Your task to perform on an android device: Do I have any events this weekend? Image 0: 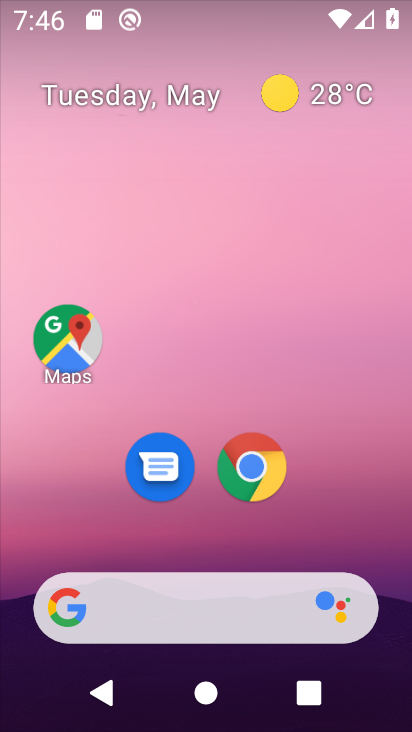
Step 0: drag from (393, 705) to (321, 213)
Your task to perform on an android device: Do I have any events this weekend? Image 1: 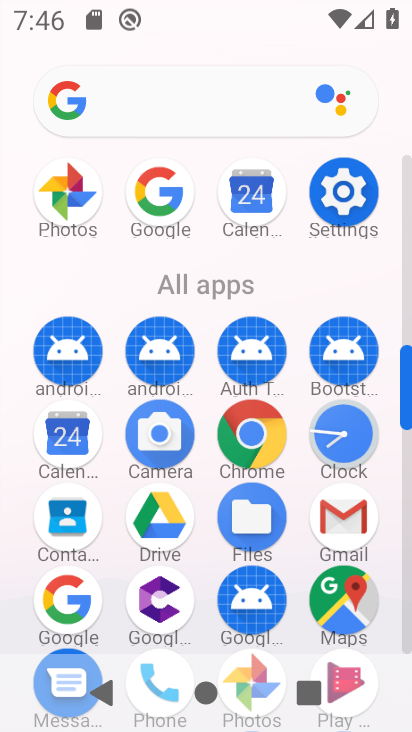
Step 1: click (243, 206)
Your task to perform on an android device: Do I have any events this weekend? Image 2: 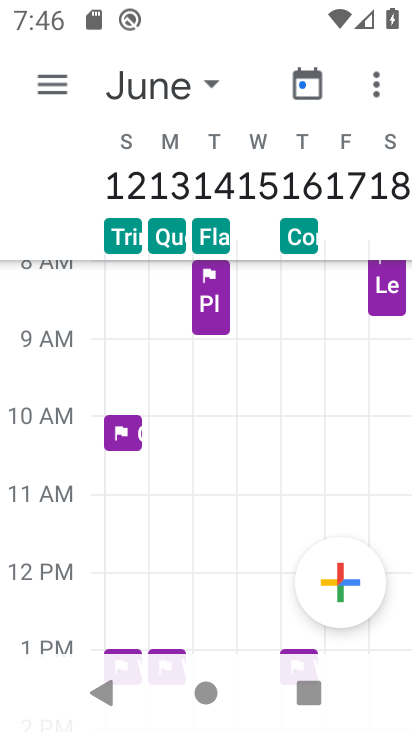
Step 2: click (204, 79)
Your task to perform on an android device: Do I have any events this weekend? Image 3: 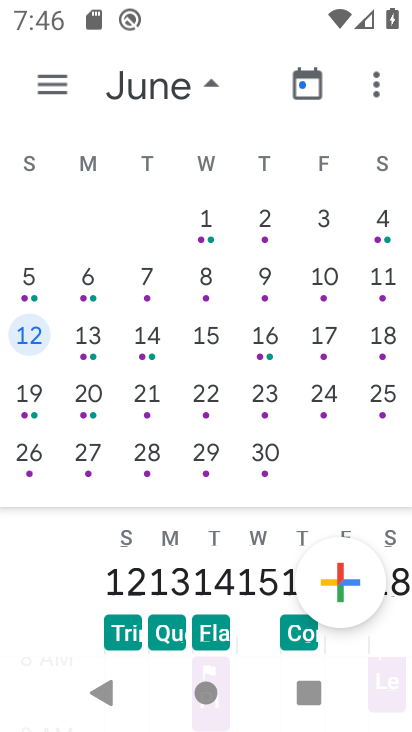
Step 3: drag from (76, 221) to (363, 211)
Your task to perform on an android device: Do I have any events this weekend? Image 4: 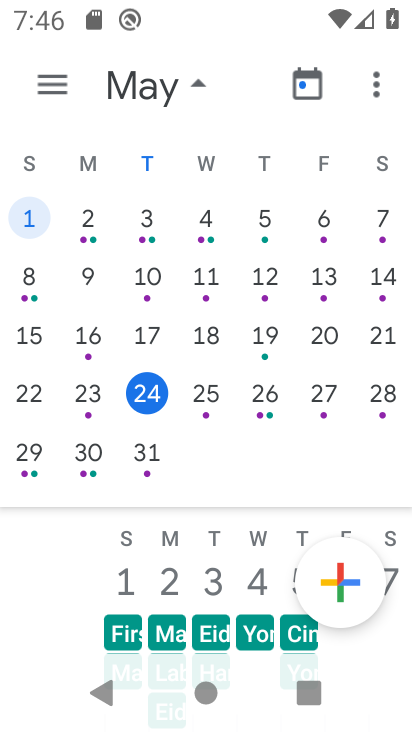
Step 4: click (58, 77)
Your task to perform on an android device: Do I have any events this weekend? Image 5: 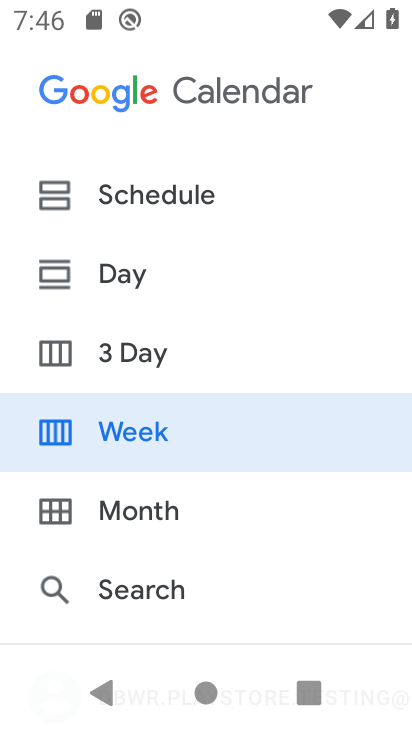
Step 5: click (89, 424)
Your task to perform on an android device: Do I have any events this weekend? Image 6: 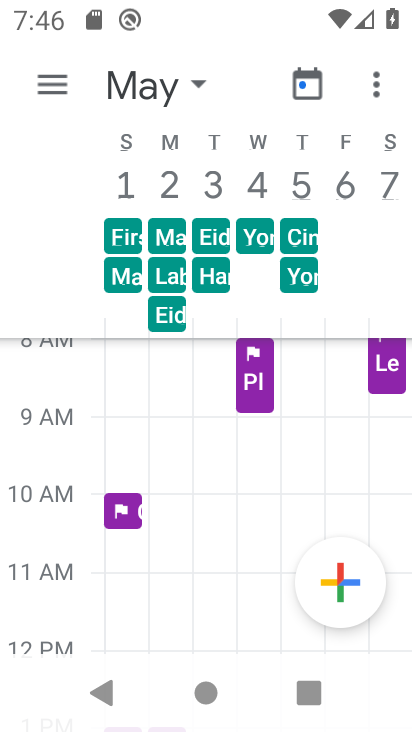
Step 6: click (196, 85)
Your task to perform on an android device: Do I have any events this weekend? Image 7: 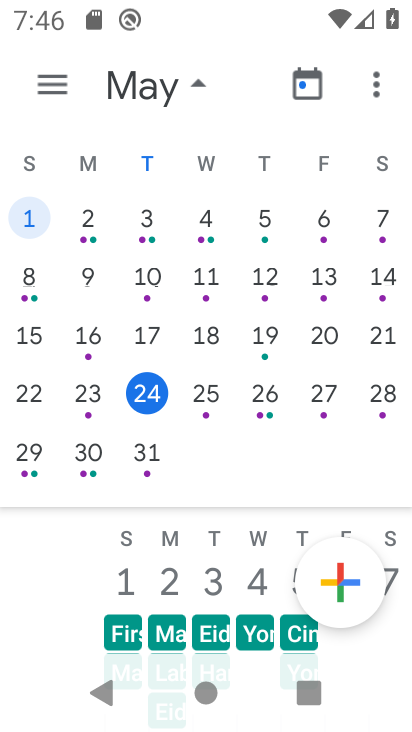
Step 7: click (142, 397)
Your task to perform on an android device: Do I have any events this weekend? Image 8: 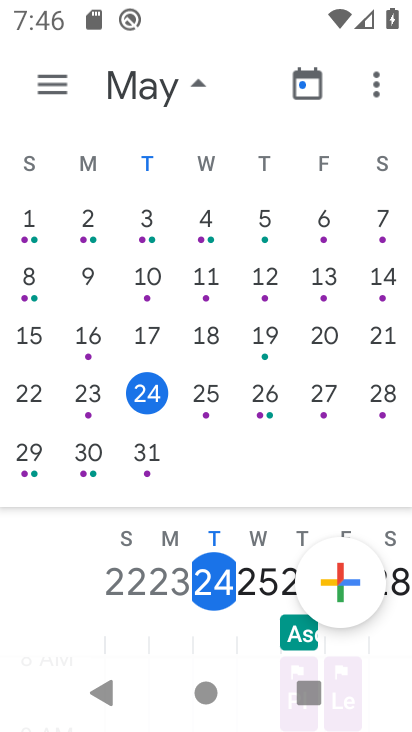
Step 8: task complete